Your task to perform on an android device: How much does a 2 bedroom apartment rent for in New York? Image 0: 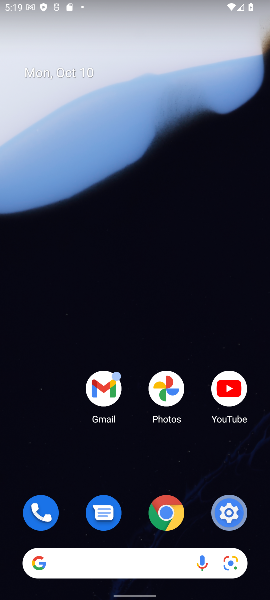
Step 0: click (138, 573)
Your task to perform on an android device: How much does a 2 bedroom apartment rent for in New York? Image 1: 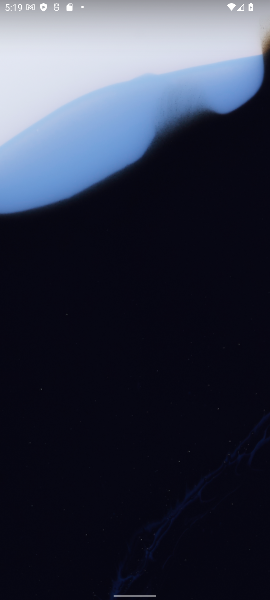
Step 1: type "How much does a 2 bedroom apartment rent for in New York?"
Your task to perform on an android device: How much does a 2 bedroom apartment rent for in New York? Image 2: 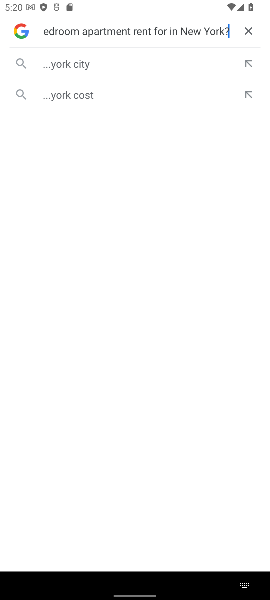
Step 2: click (163, 57)
Your task to perform on an android device: How much does a 2 bedroom apartment rent for in New York? Image 3: 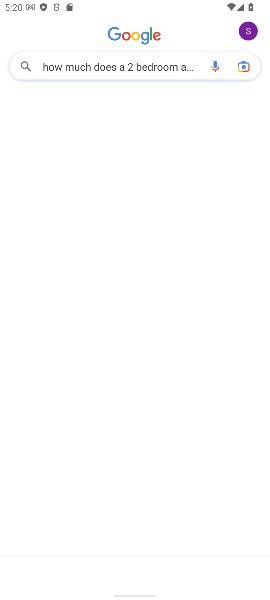
Step 3: task complete